Your task to perform on an android device: Open maps Image 0: 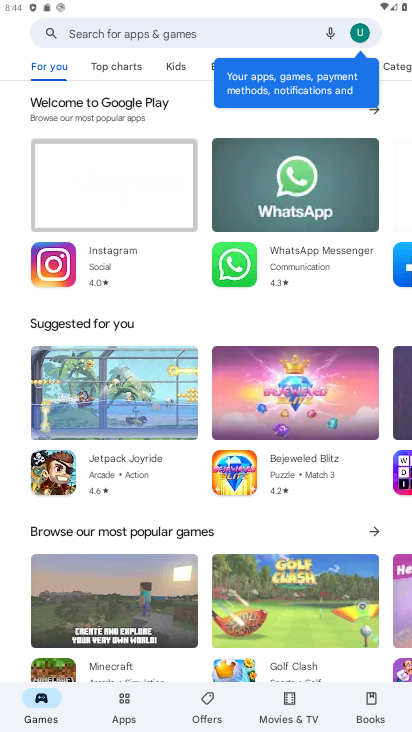
Step 0: press home button
Your task to perform on an android device: Open maps Image 1: 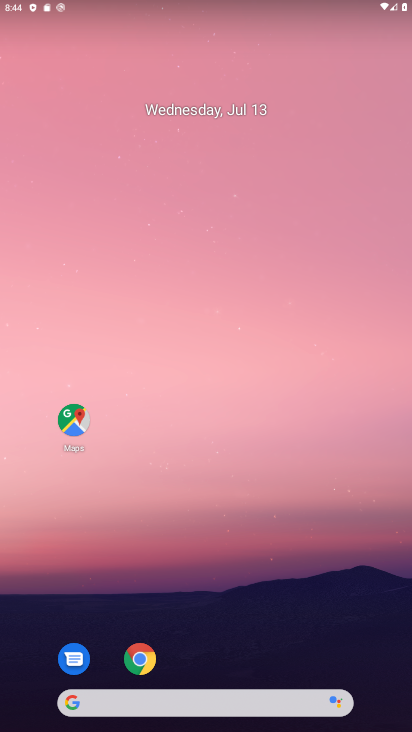
Step 1: click (75, 421)
Your task to perform on an android device: Open maps Image 2: 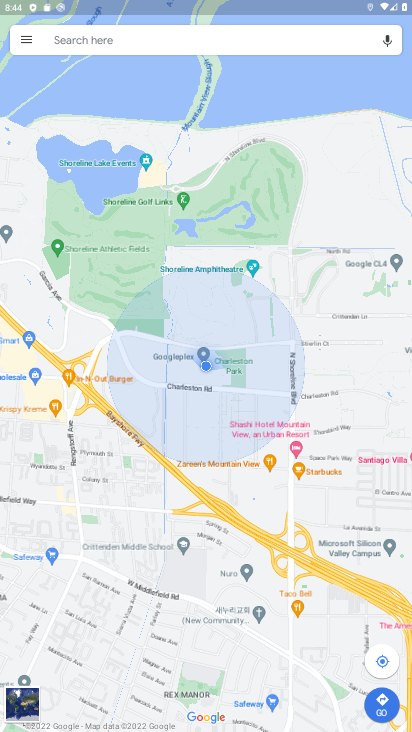
Step 2: task complete